Your task to perform on an android device: change notification settings in the gmail app Image 0: 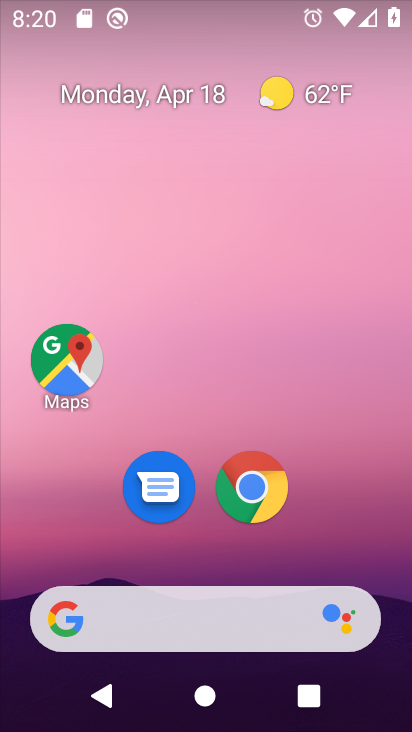
Step 0: press home button
Your task to perform on an android device: change notification settings in the gmail app Image 1: 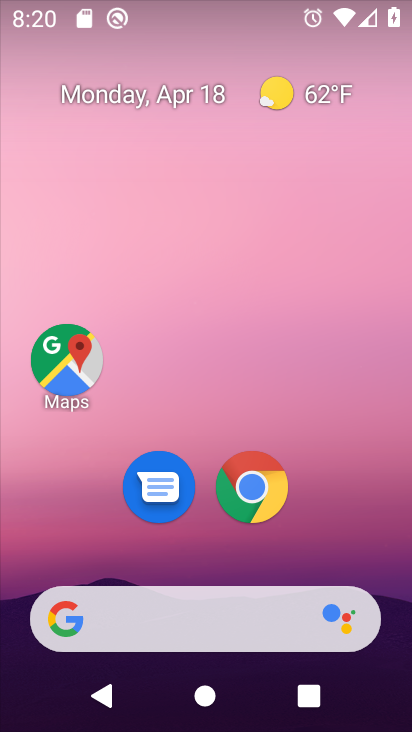
Step 1: press home button
Your task to perform on an android device: change notification settings in the gmail app Image 2: 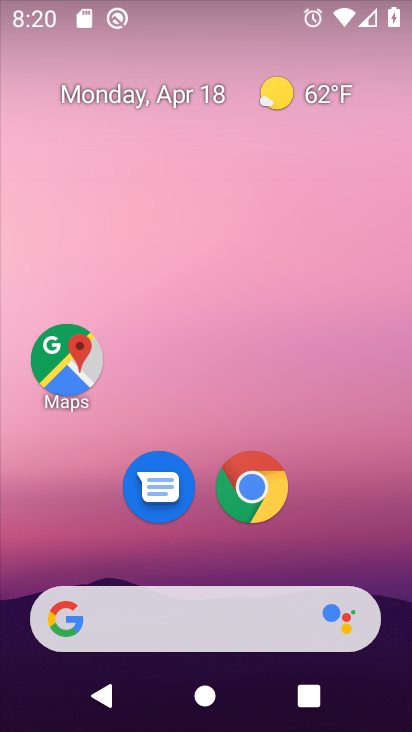
Step 2: drag from (209, 579) to (203, 16)
Your task to perform on an android device: change notification settings in the gmail app Image 3: 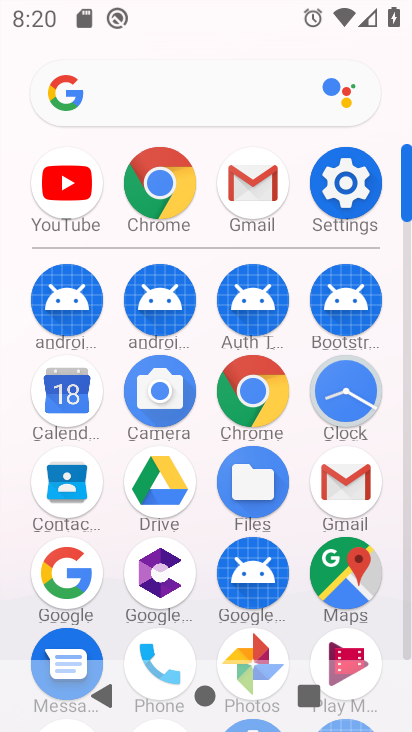
Step 3: click (342, 474)
Your task to perform on an android device: change notification settings in the gmail app Image 4: 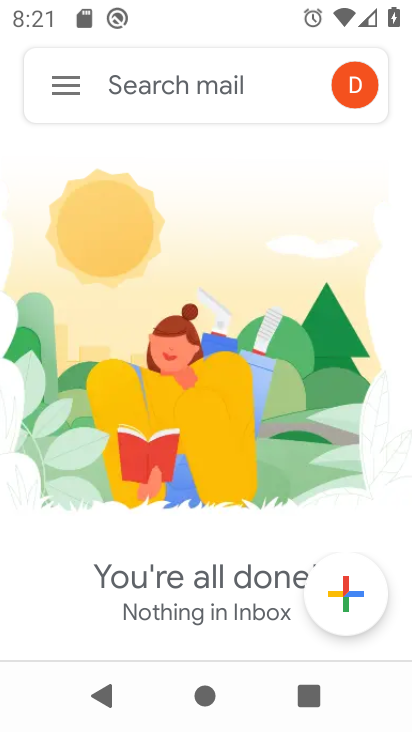
Step 4: click (53, 76)
Your task to perform on an android device: change notification settings in the gmail app Image 5: 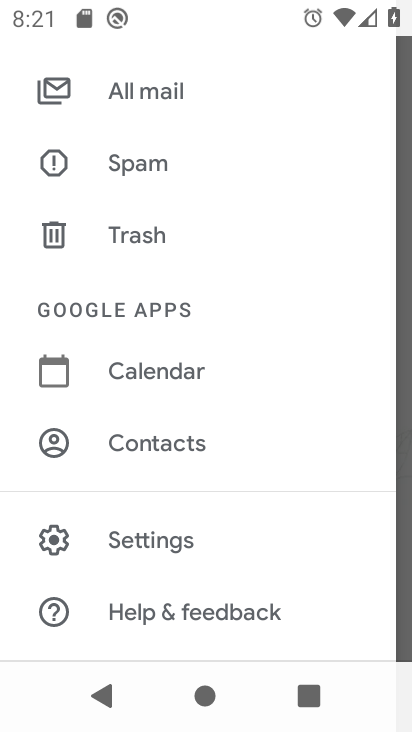
Step 5: click (205, 535)
Your task to perform on an android device: change notification settings in the gmail app Image 6: 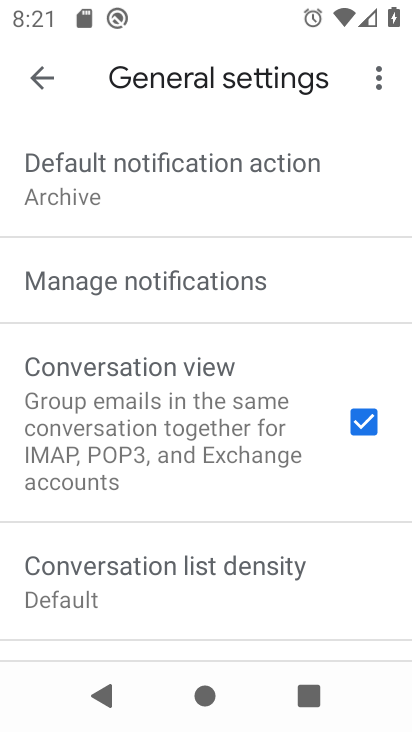
Step 6: click (274, 278)
Your task to perform on an android device: change notification settings in the gmail app Image 7: 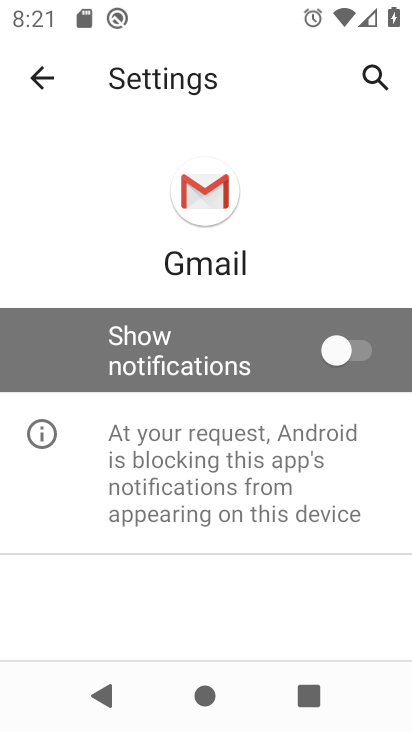
Step 7: click (365, 343)
Your task to perform on an android device: change notification settings in the gmail app Image 8: 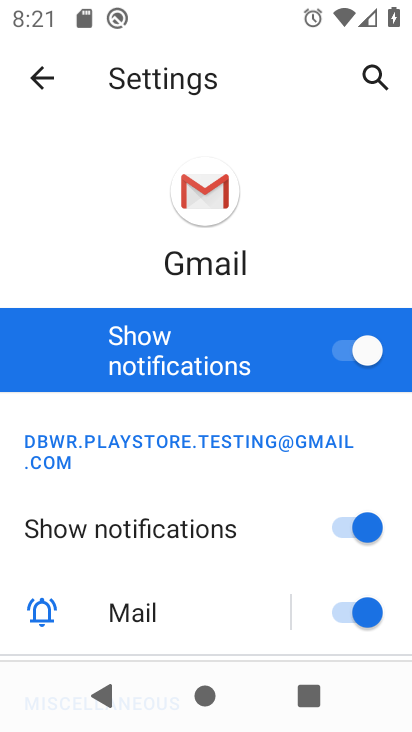
Step 8: task complete